Your task to perform on an android device: When is my next appointment? Image 0: 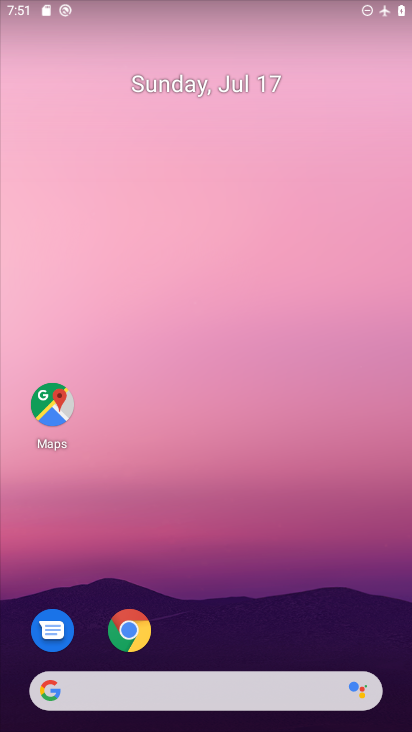
Step 0: drag from (399, 635) to (340, 299)
Your task to perform on an android device: When is my next appointment? Image 1: 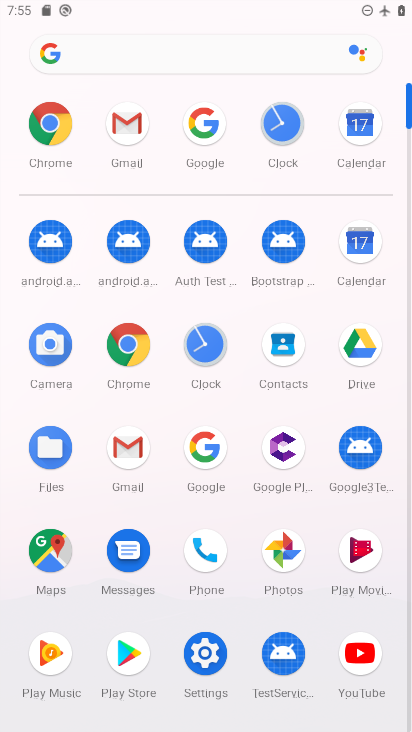
Step 1: click (357, 245)
Your task to perform on an android device: When is my next appointment? Image 2: 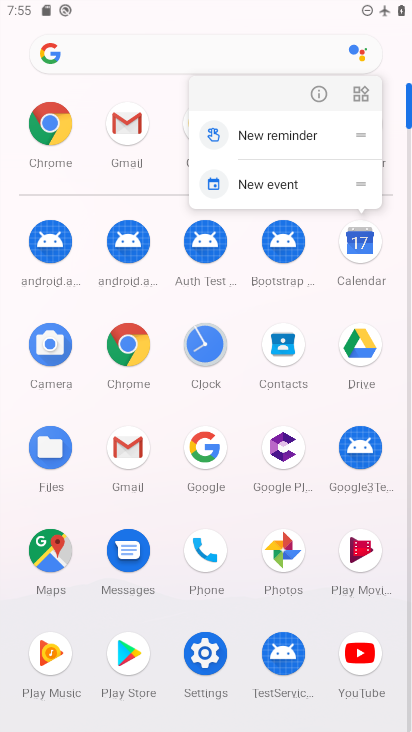
Step 2: click (357, 243)
Your task to perform on an android device: When is my next appointment? Image 3: 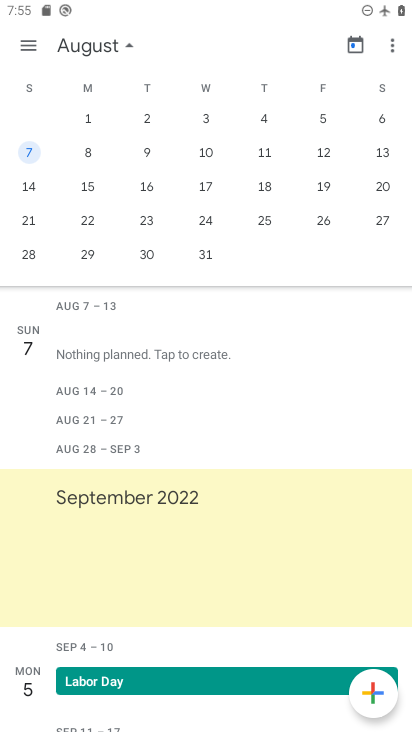
Step 3: task complete